Your task to perform on an android device: Open the Play Movies app and select the watchlist tab. Image 0: 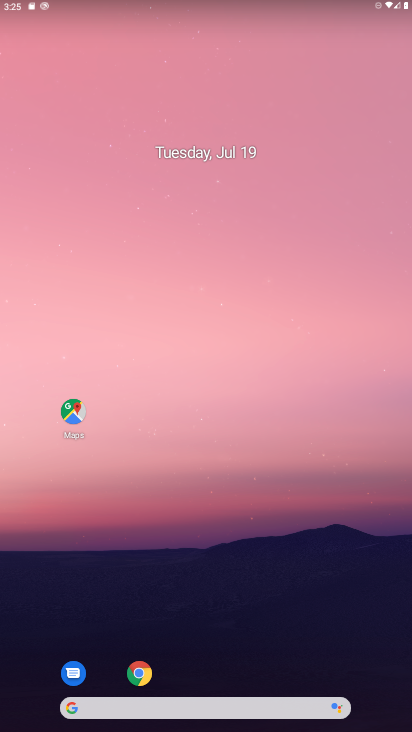
Step 0: drag from (229, 647) to (265, 78)
Your task to perform on an android device: Open the Play Movies app and select the watchlist tab. Image 1: 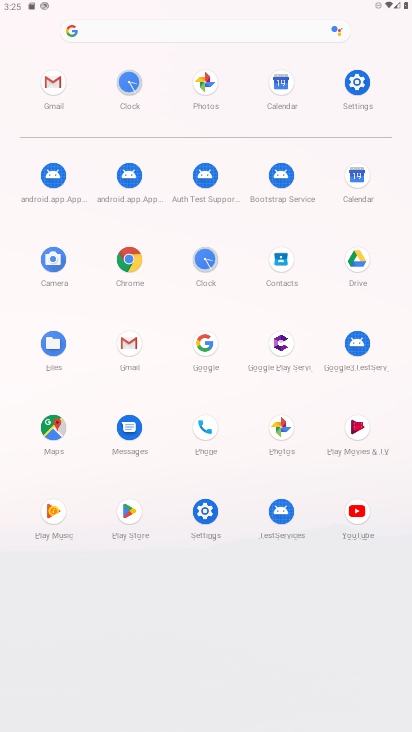
Step 1: click (365, 437)
Your task to perform on an android device: Open the Play Movies app and select the watchlist tab. Image 2: 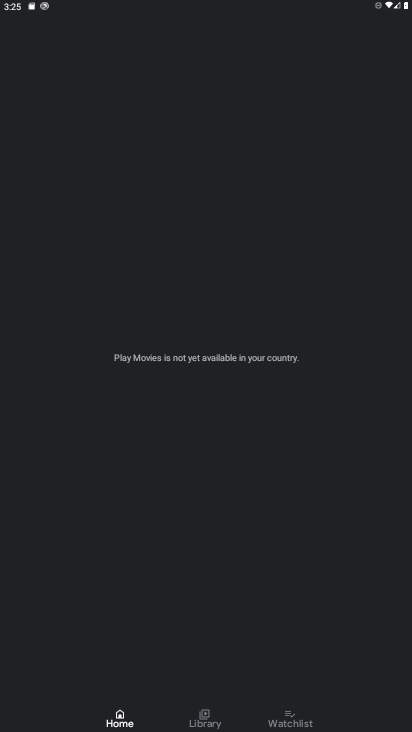
Step 2: click (286, 719)
Your task to perform on an android device: Open the Play Movies app and select the watchlist tab. Image 3: 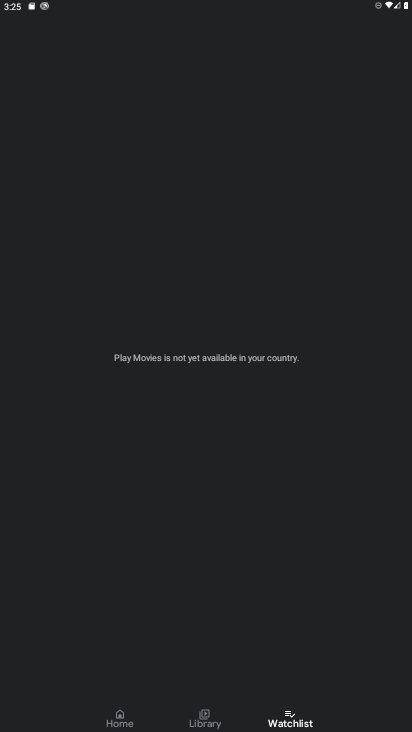
Step 3: task complete